Your task to perform on an android device: turn off airplane mode Image 0: 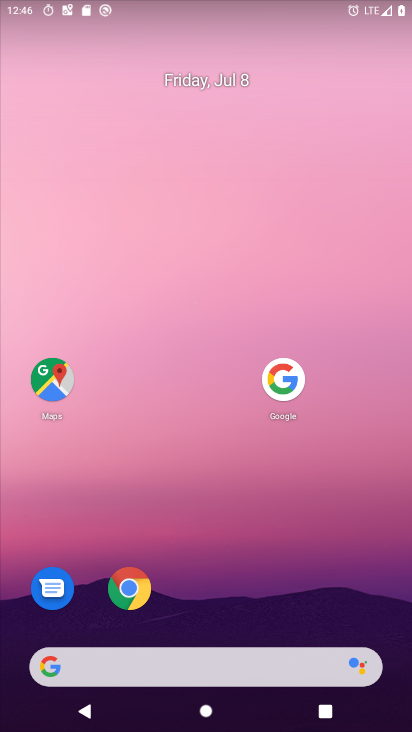
Step 0: press home button
Your task to perform on an android device: turn off airplane mode Image 1: 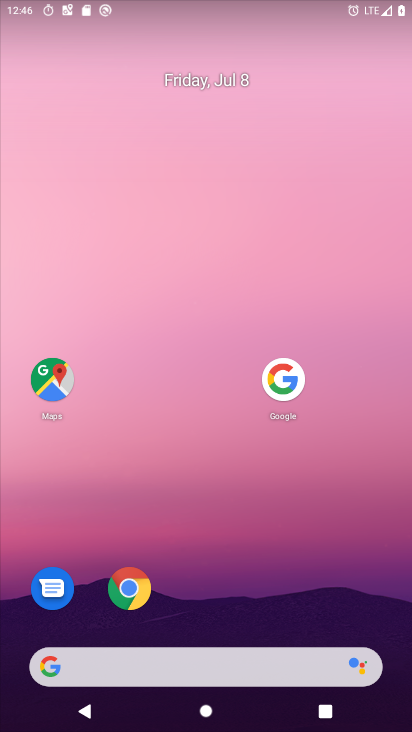
Step 1: drag from (192, 672) to (290, 131)
Your task to perform on an android device: turn off airplane mode Image 2: 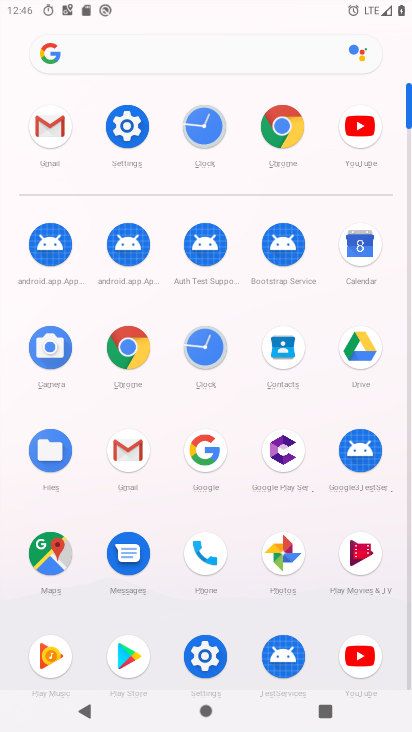
Step 2: click (121, 118)
Your task to perform on an android device: turn off airplane mode Image 3: 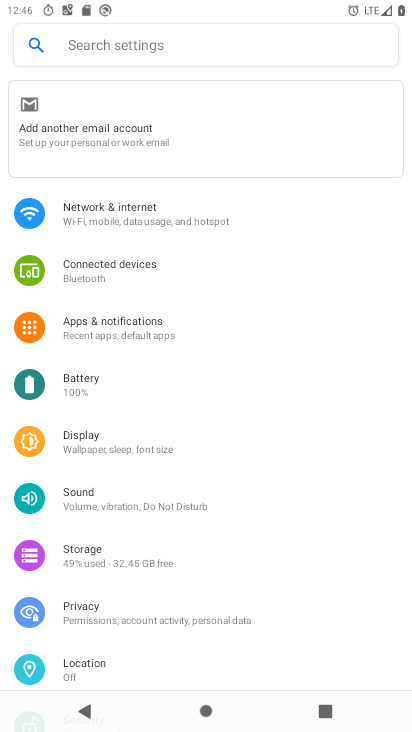
Step 3: click (127, 207)
Your task to perform on an android device: turn off airplane mode Image 4: 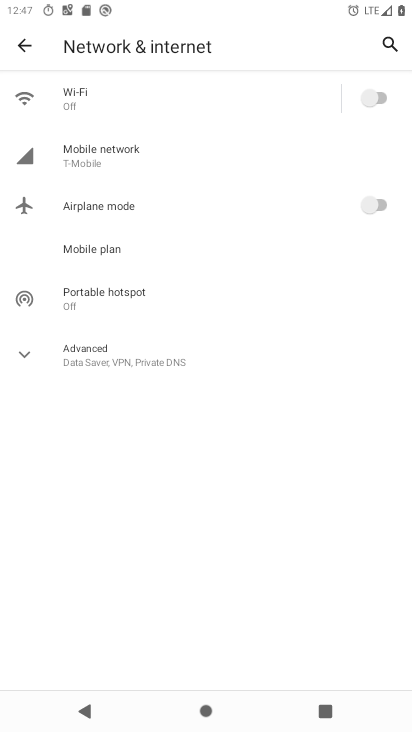
Step 4: task complete